Your task to perform on an android device: open sync settings in chrome Image 0: 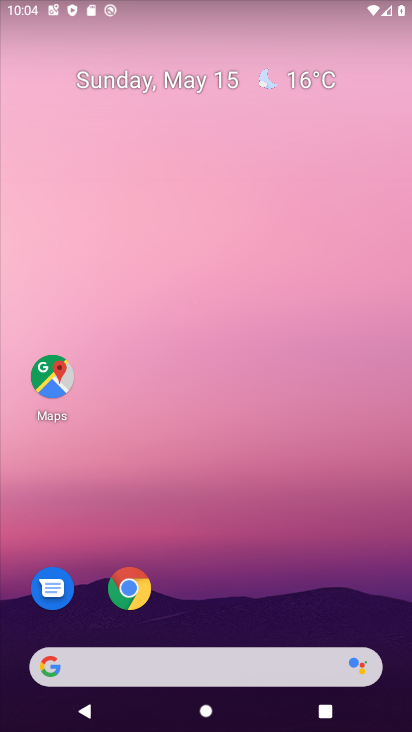
Step 0: click (136, 590)
Your task to perform on an android device: open sync settings in chrome Image 1: 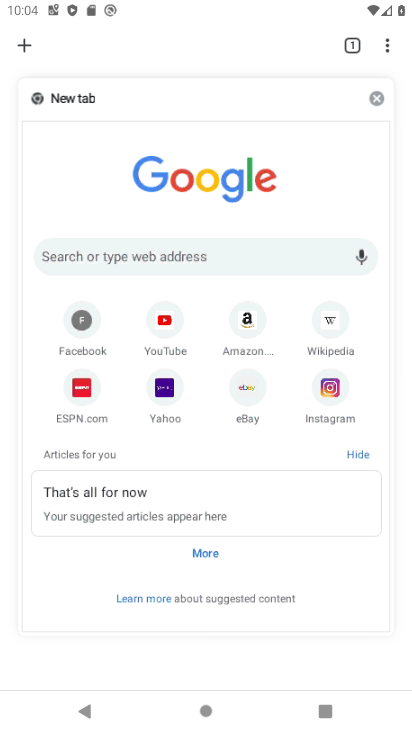
Step 1: click (393, 50)
Your task to perform on an android device: open sync settings in chrome Image 2: 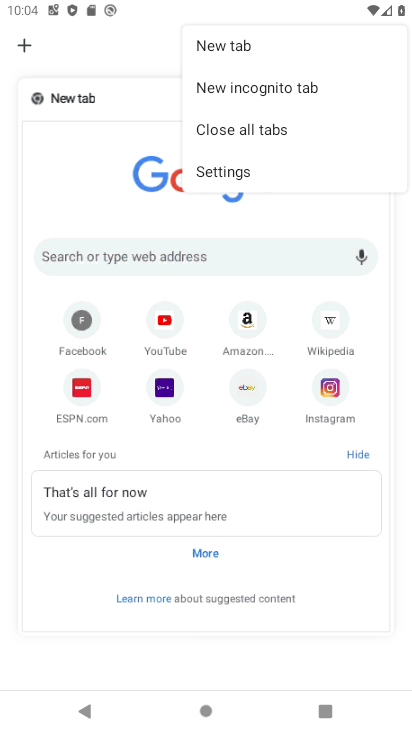
Step 2: click (230, 167)
Your task to perform on an android device: open sync settings in chrome Image 3: 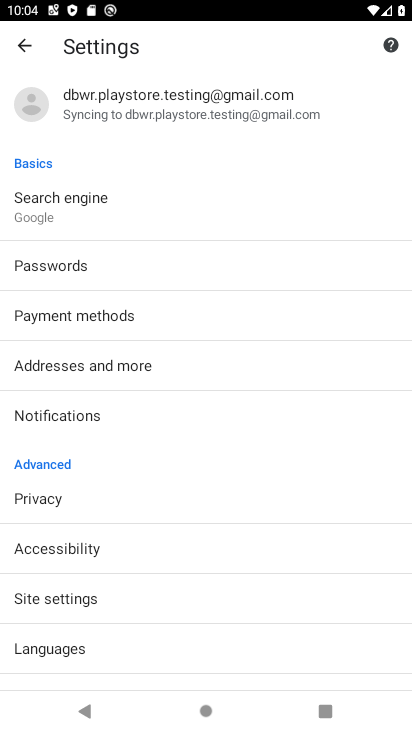
Step 3: click (82, 605)
Your task to perform on an android device: open sync settings in chrome Image 4: 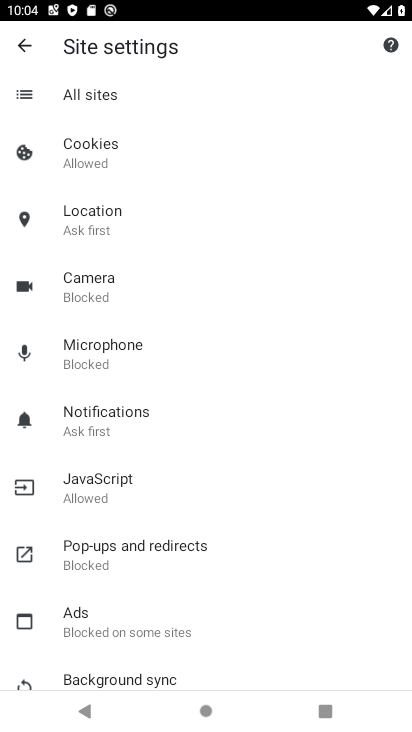
Step 4: click (131, 677)
Your task to perform on an android device: open sync settings in chrome Image 5: 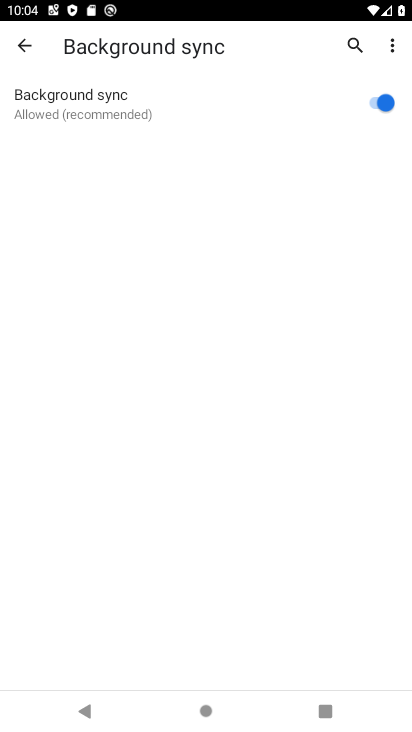
Step 5: task complete